Your task to perform on an android device: Open Reddit.com Image 0: 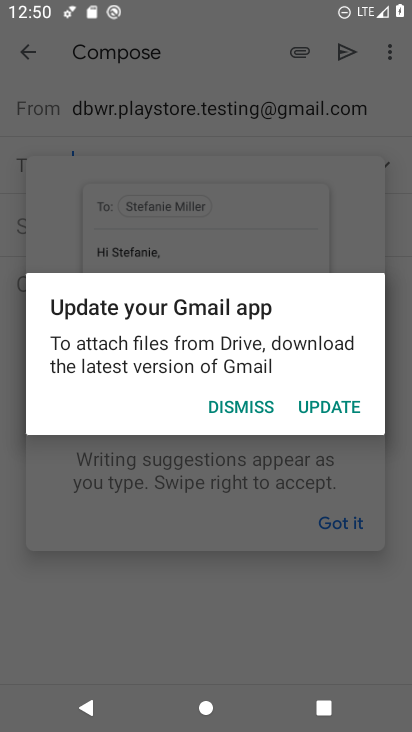
Step 0: press home button
Your task to perform on an android device: Open Reddit.com Image 1: 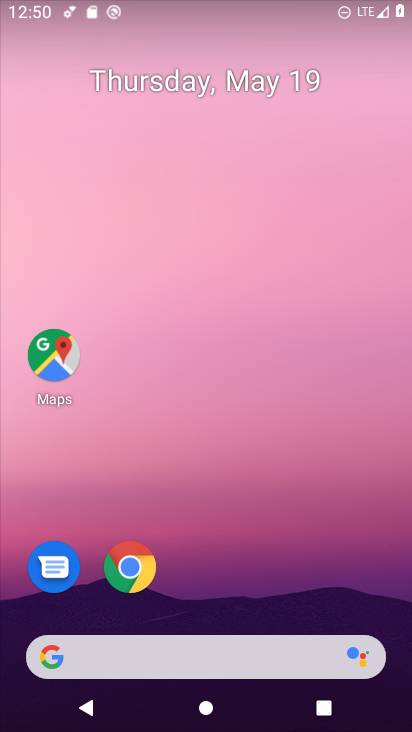
Step 1: click (249, 658)
Your task to perform on an android device: Open Reddit.com Image 2: 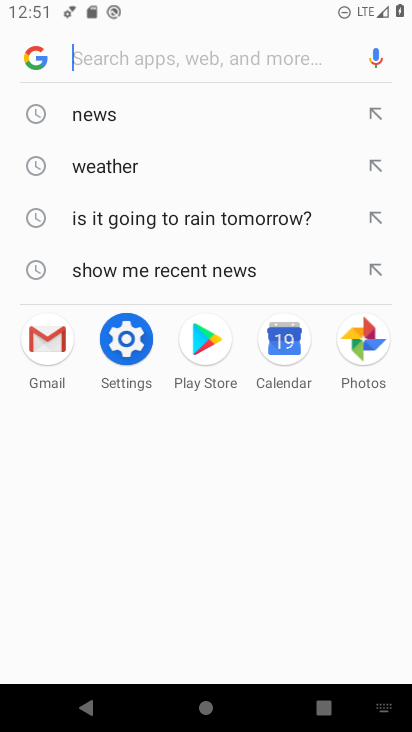
Step 2: type "reddit.com"
Your task to perform on an android device: Open Reddit.com Image 3: 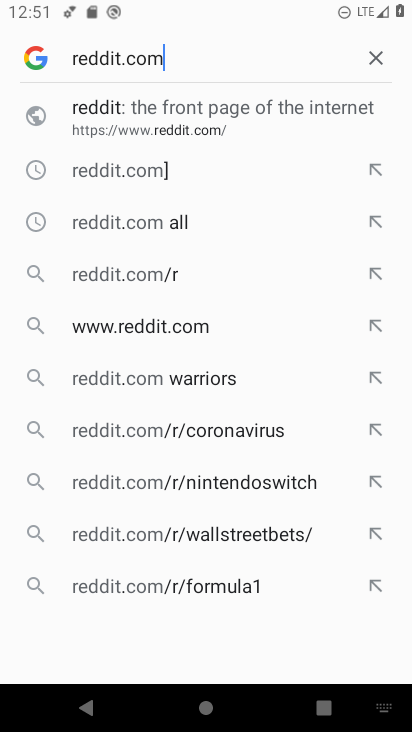
Step 3: click (101, 109)
Your task to perform on an android device: Open Reddit.com Image 4: 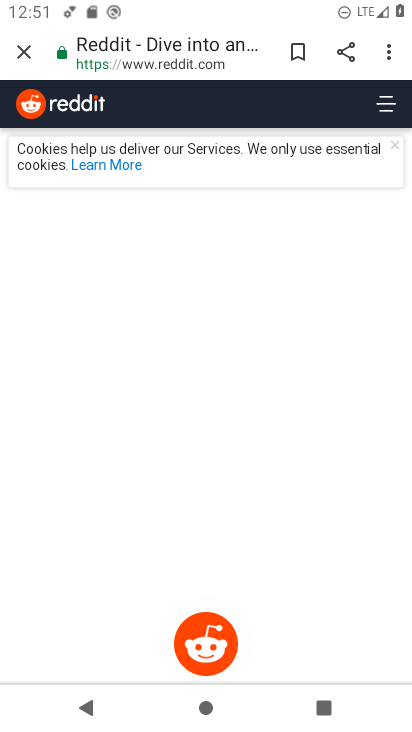
Step 4: task complete